Your task to perform on an android device: delete location history Image 0: 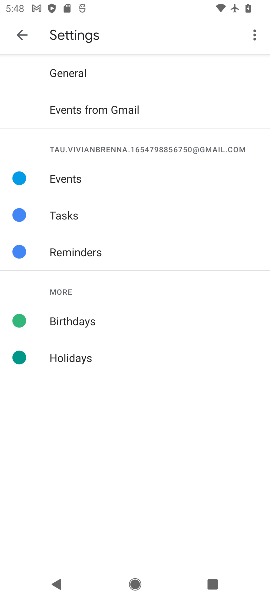
Step 0: press home button
Your task to perform on an android device: delete location history Image 1: 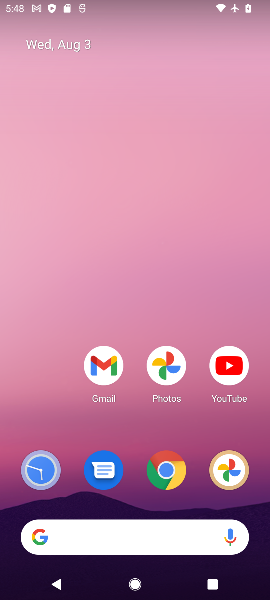
Step 1: drag from (140, 406) to (215, 84)
Your task to perform on an android device: delete location history Image 2: 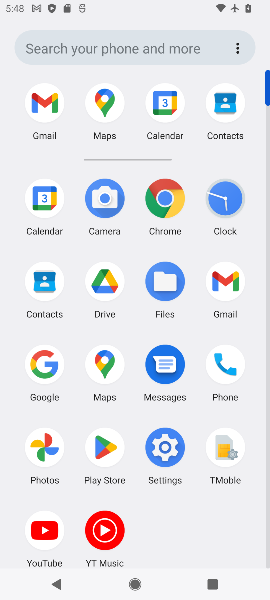
Step 2: click (103, 357)
Your task to perform on an android device: delete location history Image 3: 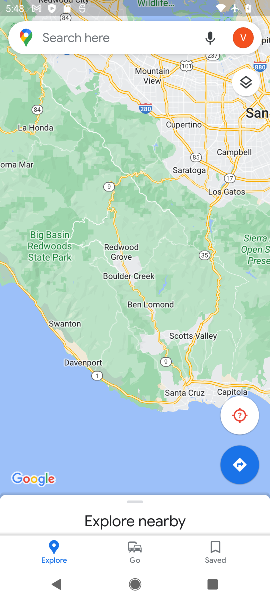
Step 3: click (242, 38)
Your task to perform on an android device: delete location history Image 4: 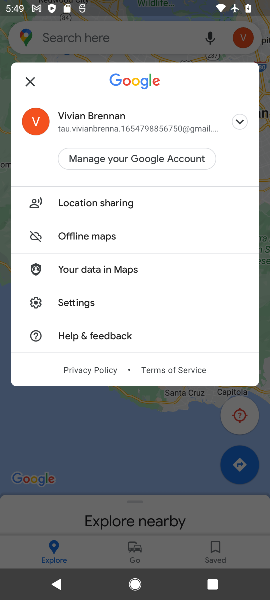
Step 4: click (83, 300)
Your task to perform on an android device: delete location history Image 5: 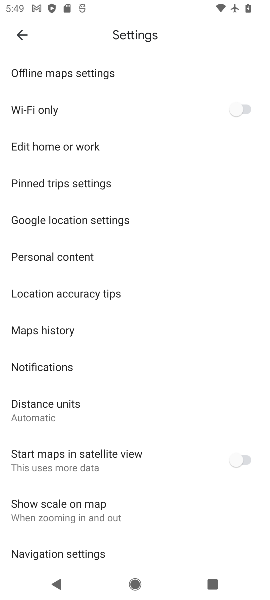
Step 5: click (72, 335)
Your task to perform on an android device: delete location history Image 6: 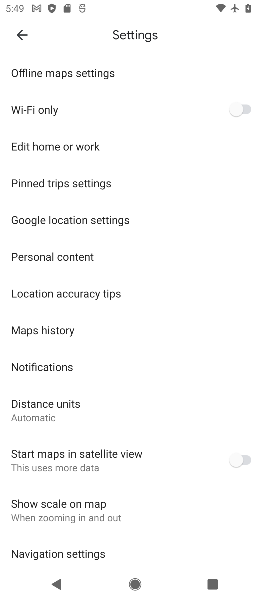
Step 6: click (58, 331)
Your task to perform on an android device: delete location history Image 7: 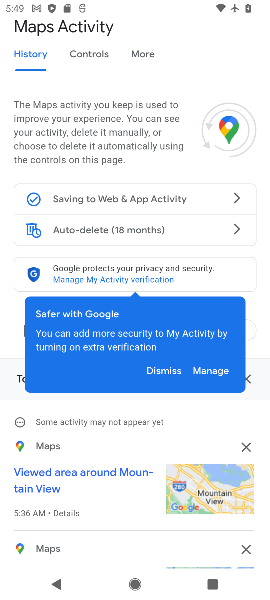
Step 7: click (169, 372)
Your task to perform on an android device: delete location history Image 8: 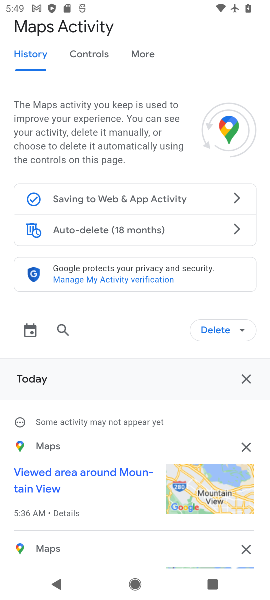
Step 8: click (222, 331)
Your task to perform on an android device: delete location history Image 9: 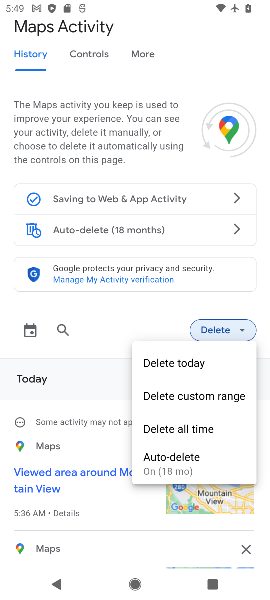
Step 9: click (193, 433)
Your task to perform on an android device: delete location history Image 10: 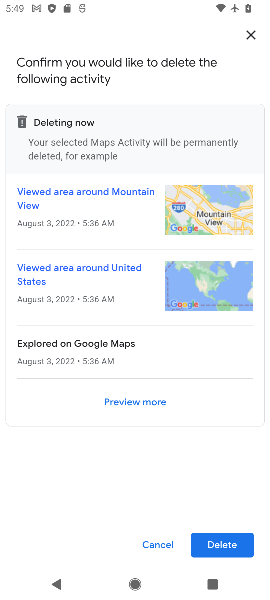
Step 10: click (235, 547)
Your task to perform on an android device: delete location history Image 11: 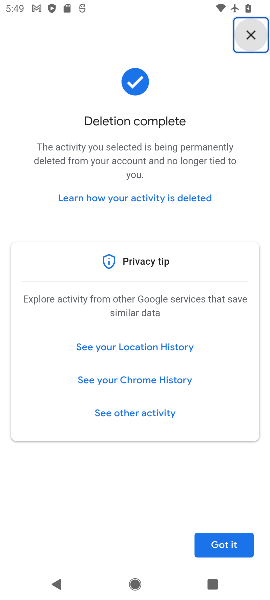
Step 11: task complete